Your task to perform on an android device: turn notification dots on Image 0: 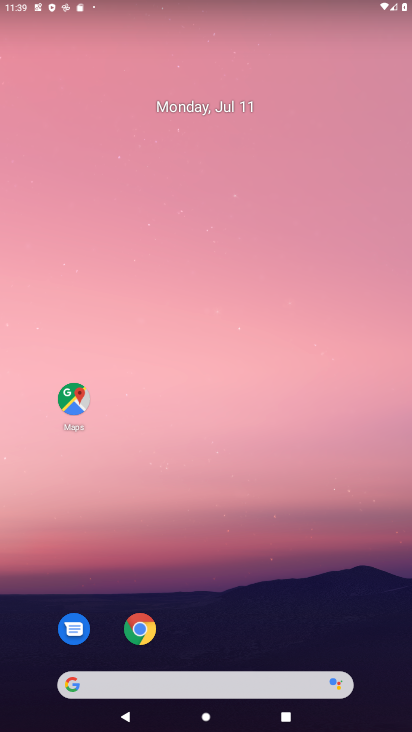
Step 0: drag from (270, 642) to (222, 57)
Your task to perform on an android device: turn notification dots on Image 1: 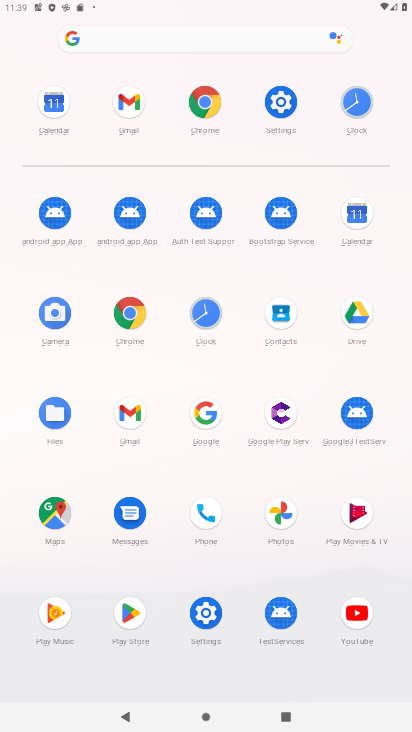
Step 1: click (282, 101)
Your task to perform on an android device: turn notification dots on Image 2: 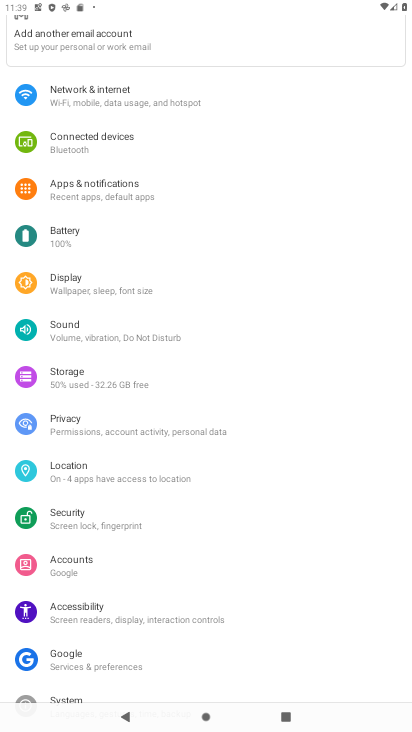
Step 2: click (159, 181)
Your task to perform on an android device: turn notification dots on Image 3: 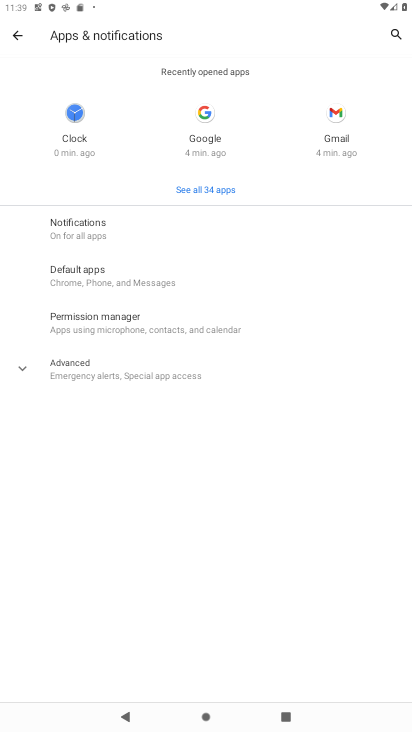
Step 3: click (115, 377)
Your task to perform on an android device: turn notification dots on Image 4: 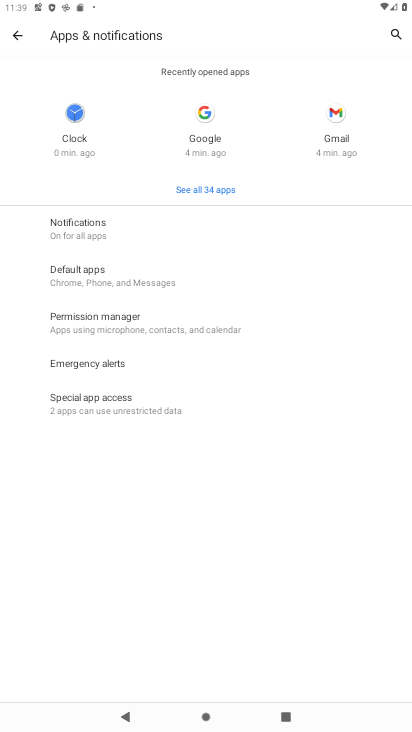
Step 4: click (111, 229)
Your task to perform on an android device: turn notification dots on Image 5: 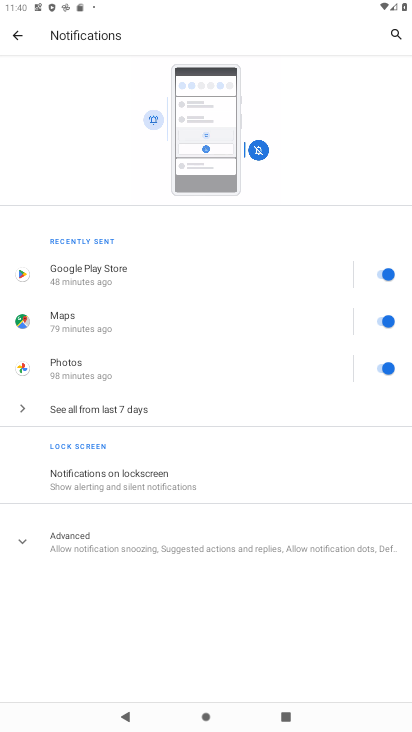
Step 5: click (111, 553)
Your task to perform on an android device: turn notification dots on Image 6: 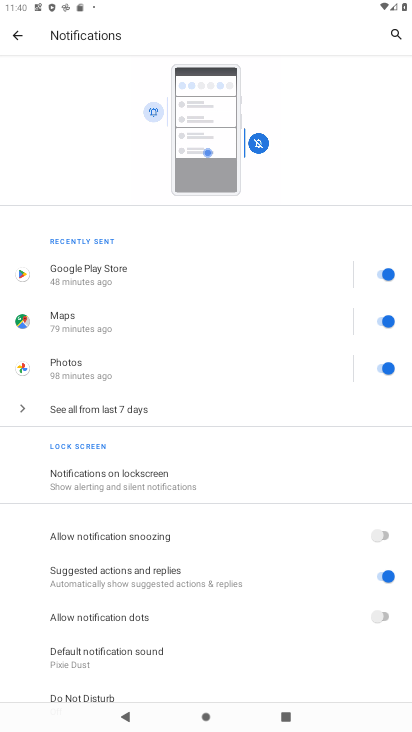
Step 6: click (361, 608)
Your task to perform on an android device: turn notification dots on Image 7: 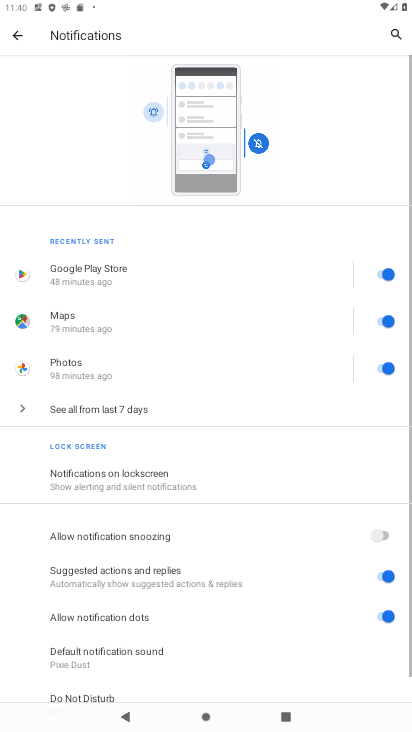
Step 7: click (365, 608)
Your task to perform on an android device: turn notification dots on Image 8: 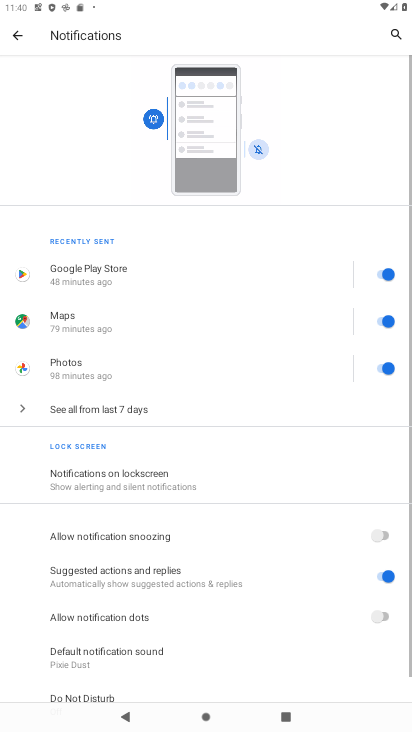
Step 8: click (365, 608)
Your task to perform on an android device: turn notification dots on Image 9: 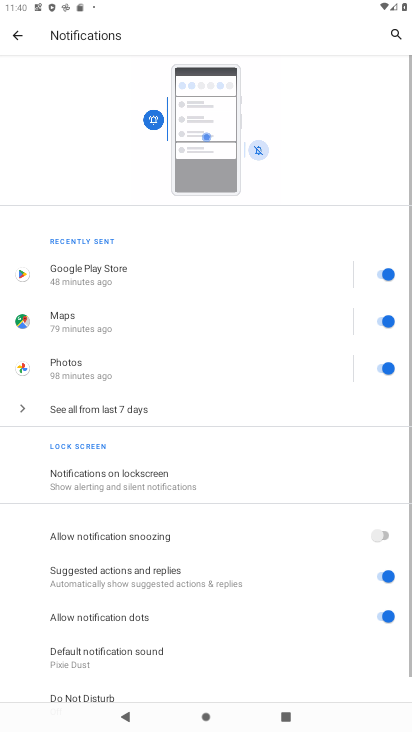
Step 9: task complete